Your task to perform on an android device: turn off picture-in-picture Image 0: 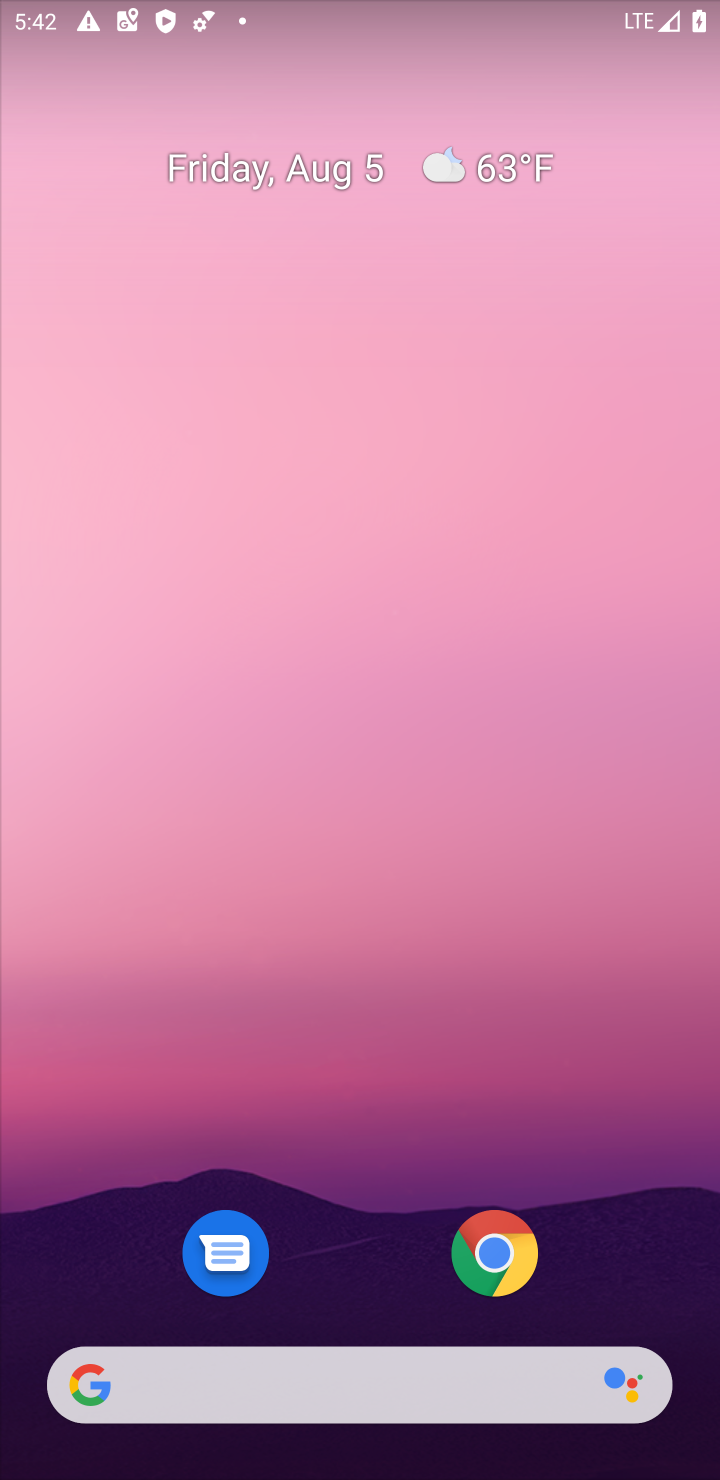
Step 0: click (504, 1271)
Your task to perform on an android device: turn off picture-in-picture Image 1: 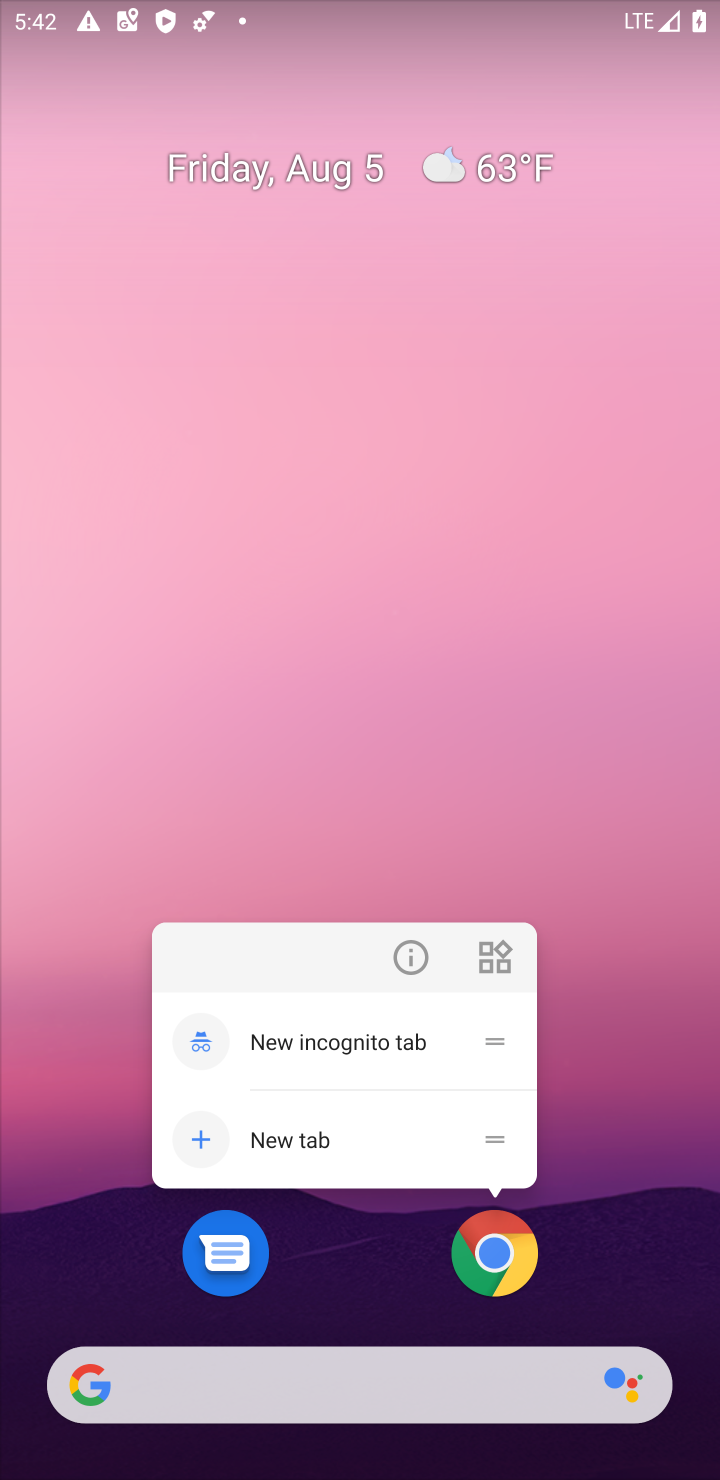
Step 1: click (404, 971)
Your task to perform on an android device: turn off picture-in-picture Image 2: 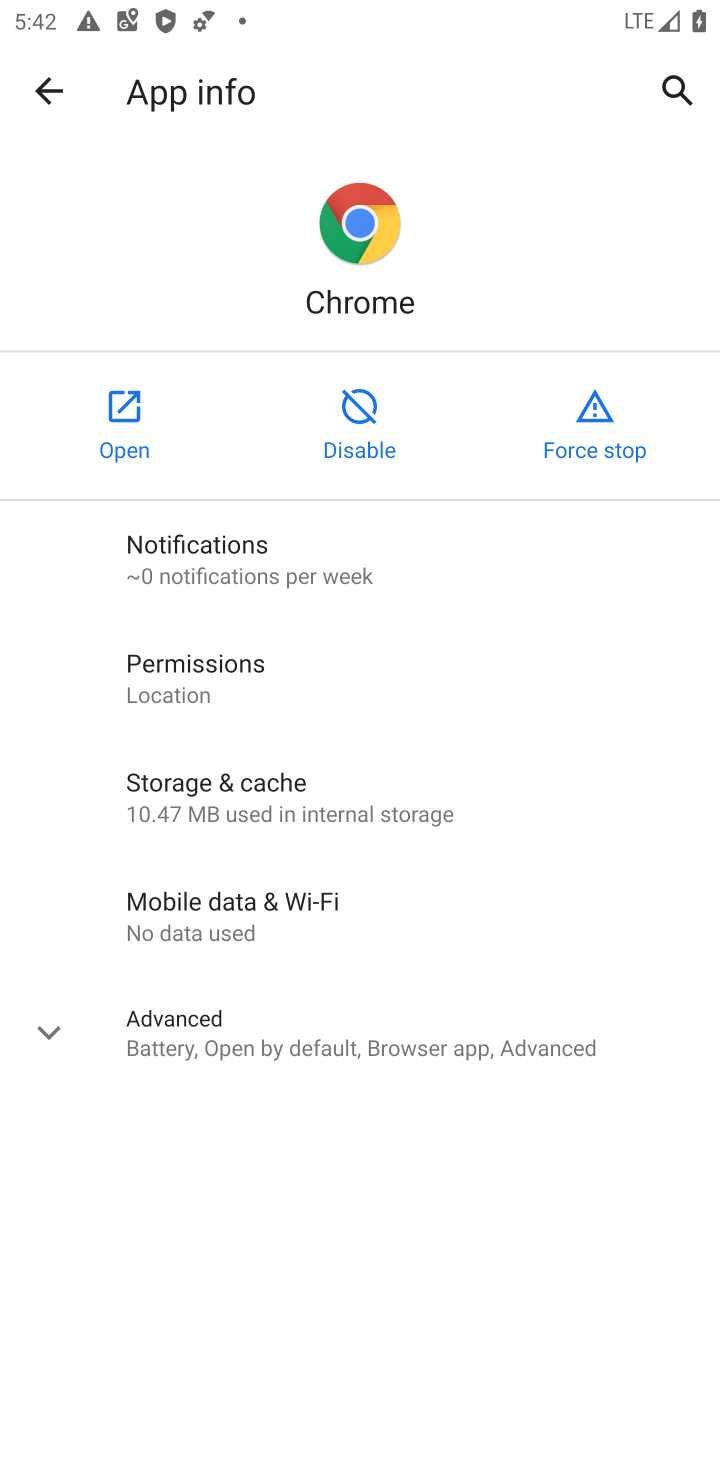
Step 2: click (242, 1057)
Your task to perform on an android device: turn off picture-in-picture Image 3: 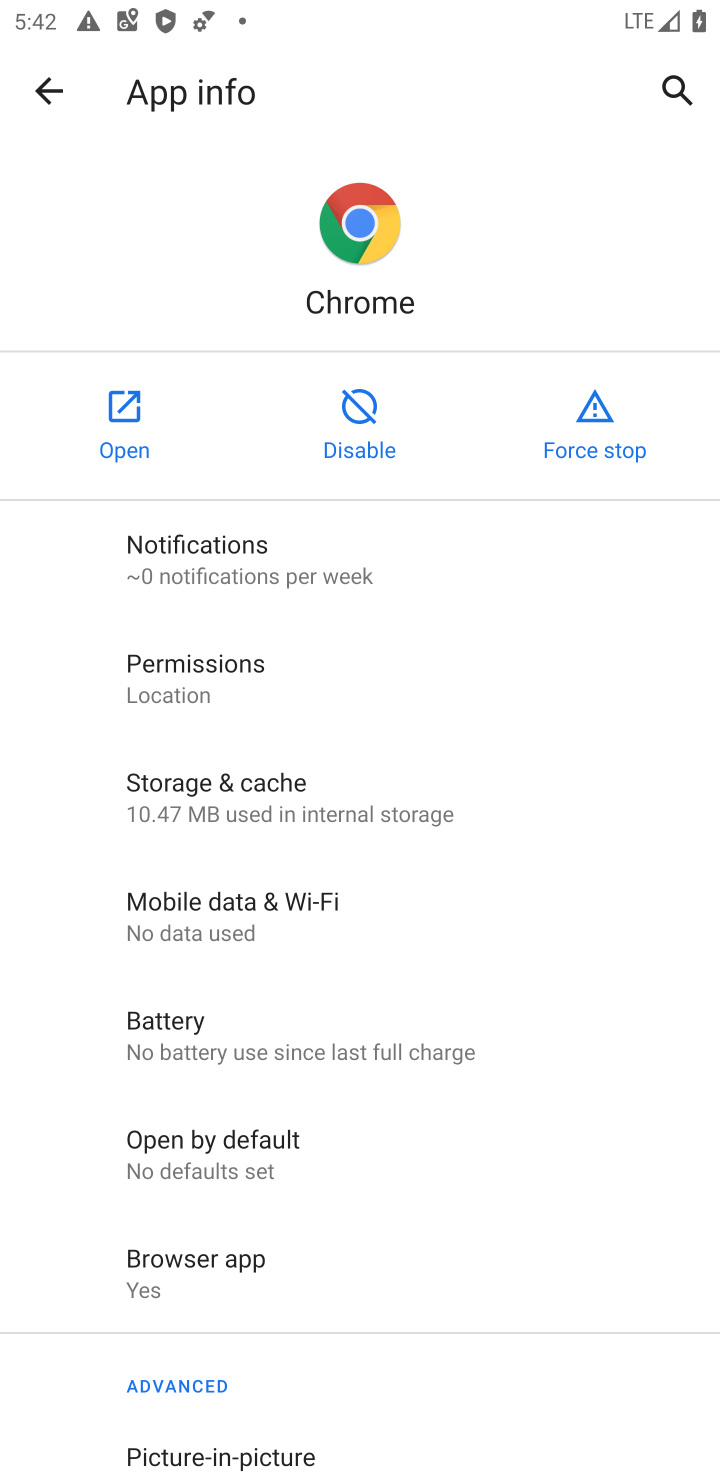
Step 3: click (240, 1451)
Your task to perform on an android device: turn off picture-in-picture Image 4: 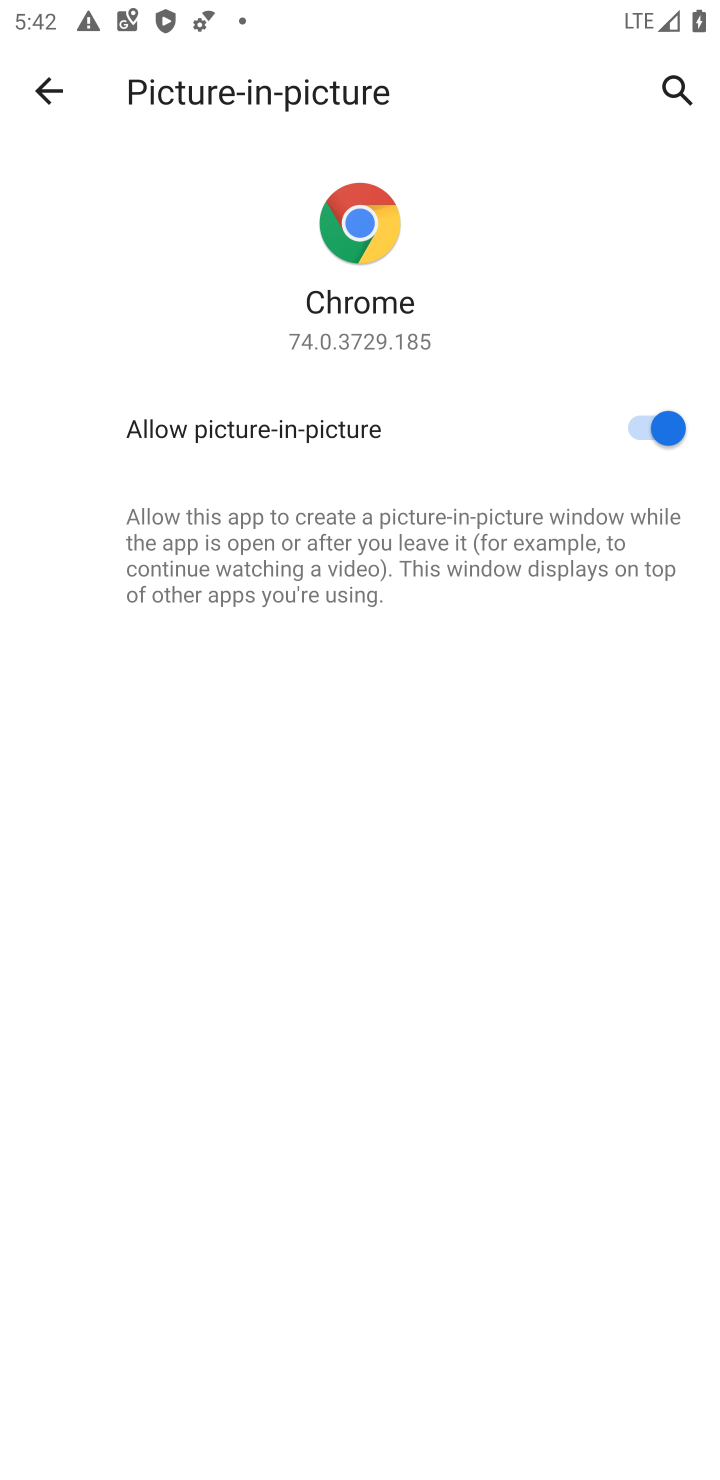
Step 4: click (671, 429)
Your task to perform on an android device: turn off picture-in-picture Image 5: 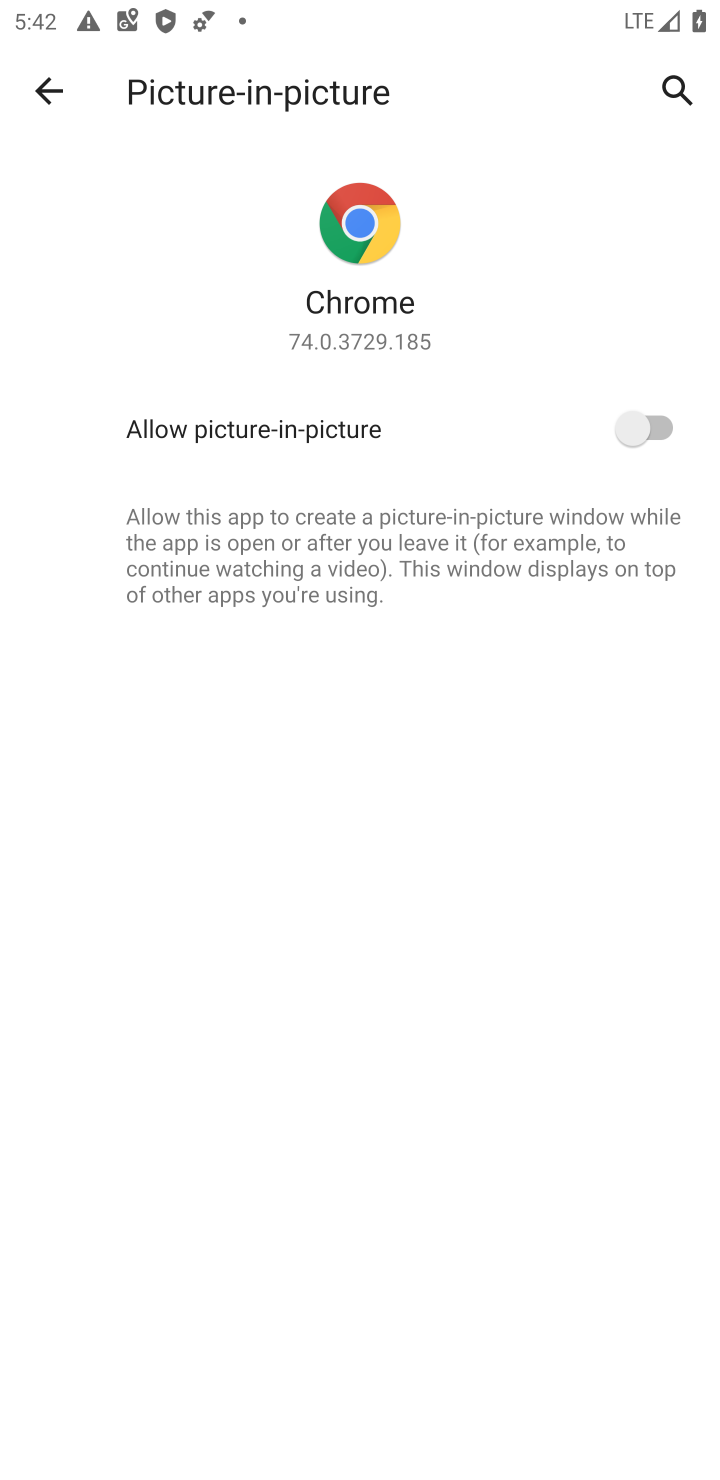
Step 5: task complete